Your task to perform on an android device: choose inbox layout in the gmail app Image 0: 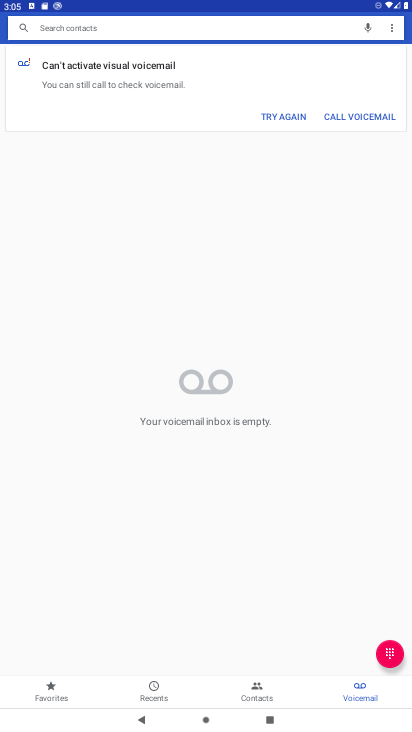
Step 0: press home button
Your task to perform on an android device: choose inbox layout in the gmail app Image 1: 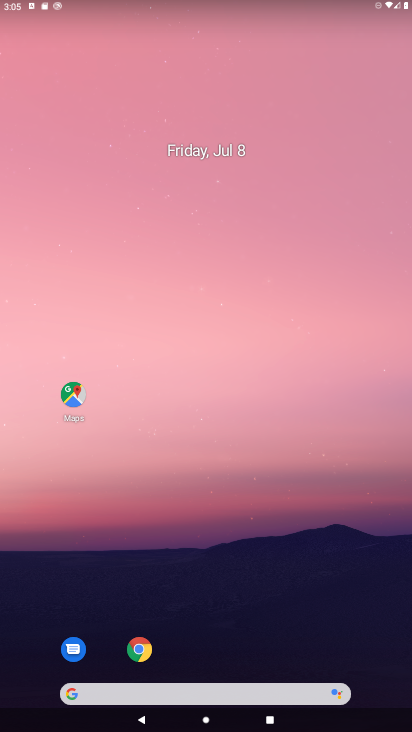
Step 1: drag from (338, 647) to (335, 170)
Your task to perform on an android device: choose inbox layout in the gmail app Image 2: 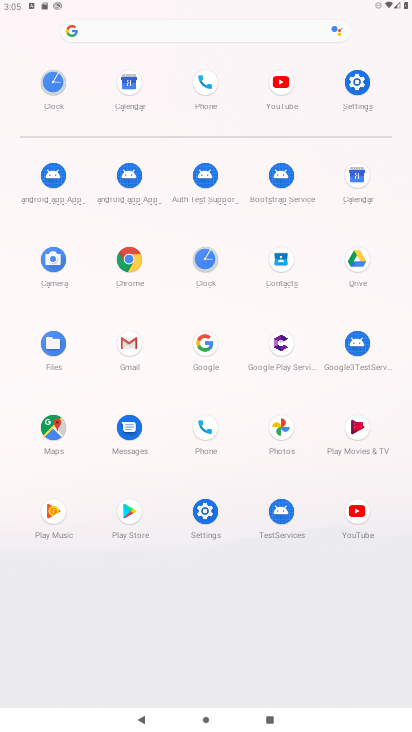
Step 2: click (129, 343)
Your task to perform on an android device: choose inbox layout in the gmail app Image 3: 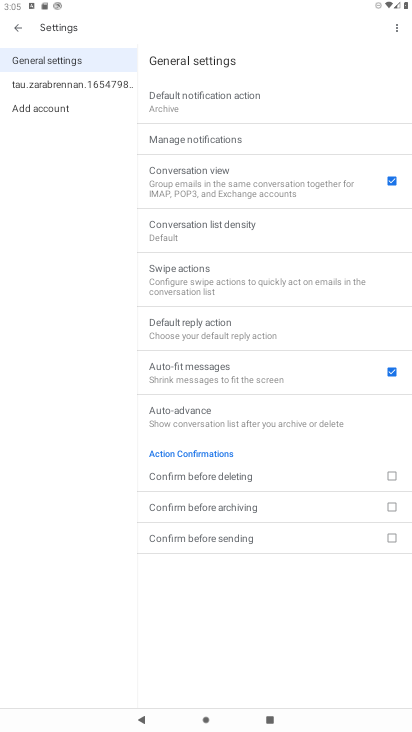
Step 3: click (57, 78)
Your task to perform on an android device: choose inbox layout in the gmail app Image 4: 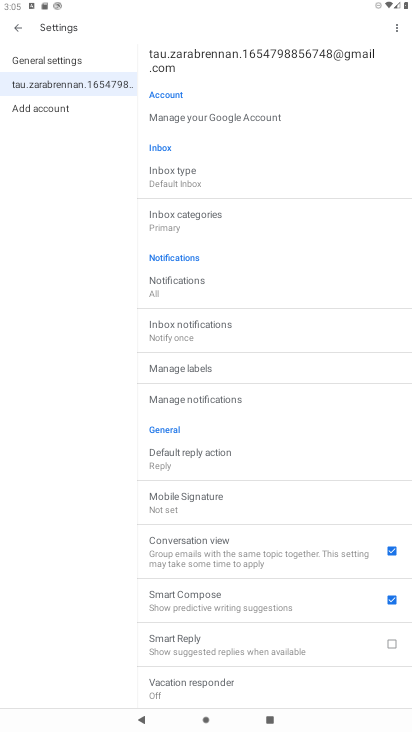
Step 4: click (172, 168)
Your task to perform on an android device: choose inbox layout in the gmail app Image 5: 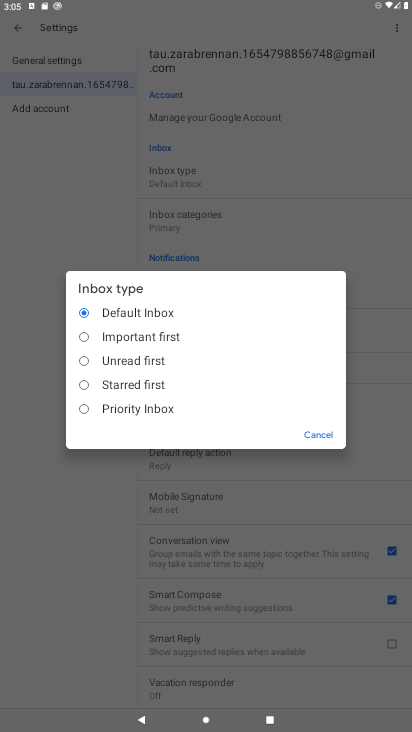
Step 5: click (82, 336)
Your task to perform on an android device: choose inbox layout in the gmail app Image 6: 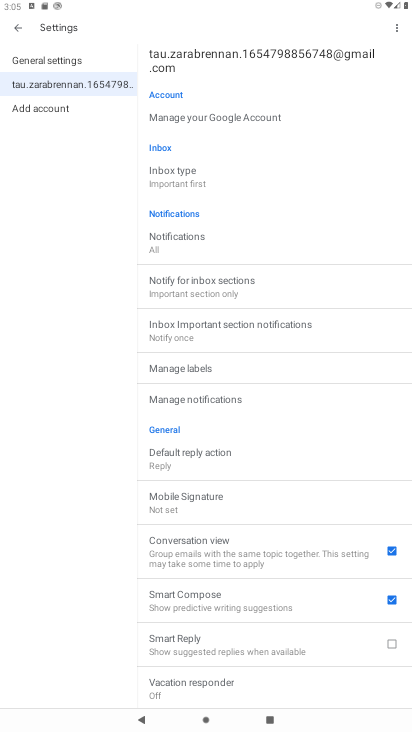
Step 6: task complete